Your task to perform on an android device: check battery use Image 0: 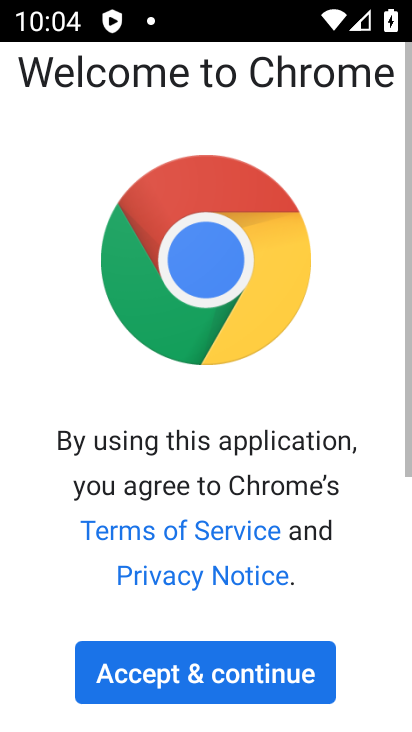
Step 0: press home button
Your task to perform on an android device: check battery use Image 1: 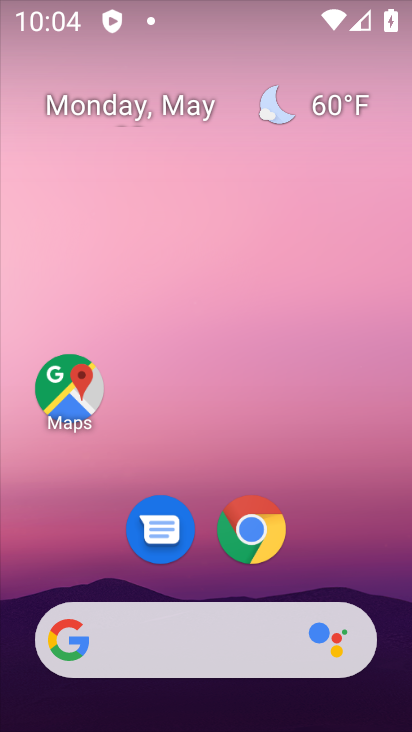
Step 1: drag from (185, 588) to (168, 278)
Your task to perform on an android device: check battery use Image 2: 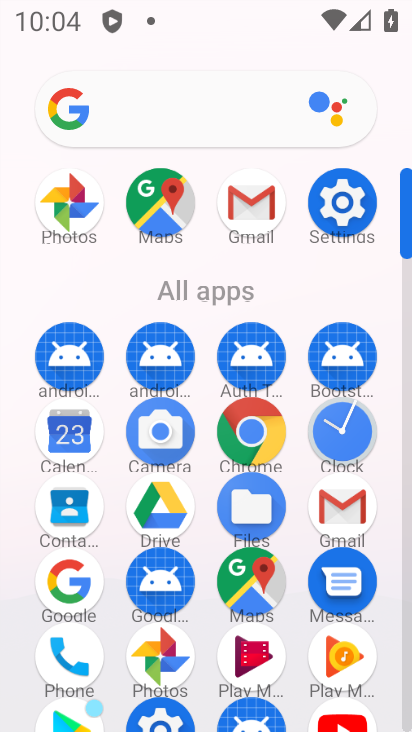
Step 2: click (336, 207)
Your task to perform on an android device: check battery use Image 3: 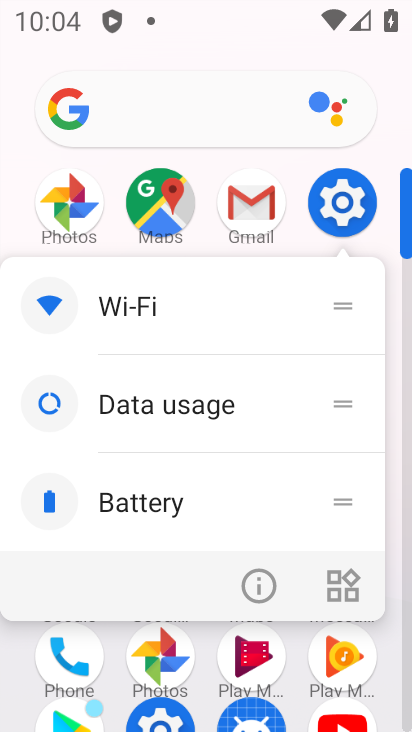
Step 3: click (343, 204)
Your task to perform on an android device: check battery use Image 4: 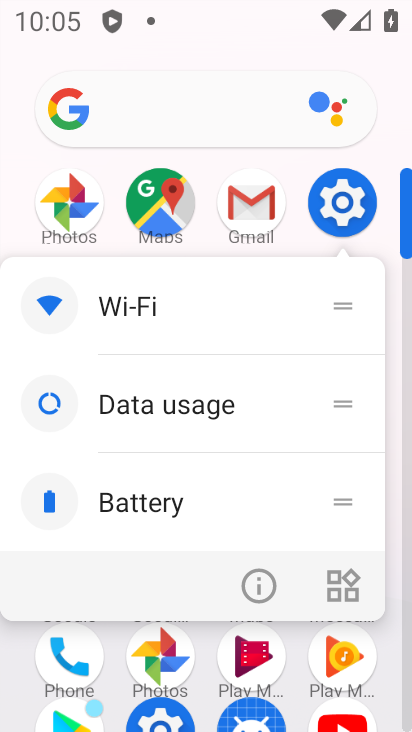
Step 4: click (333, 212)
Your task to perform on an android device: check battery use Image 5: 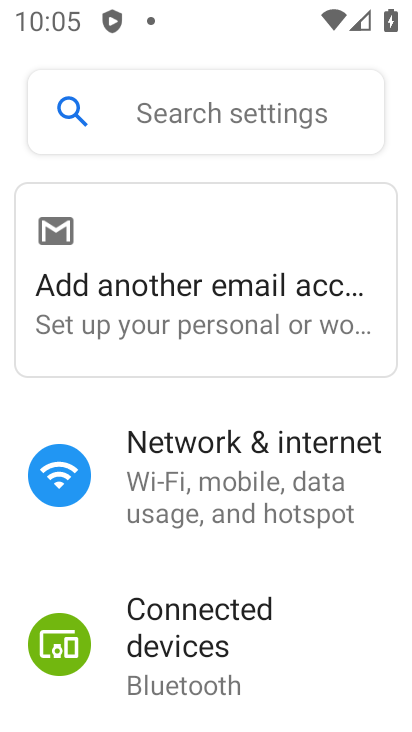
Step 5: drag from (239, 661) to (230, 264)
Your task to perform on an android device: check battery use Image 6: 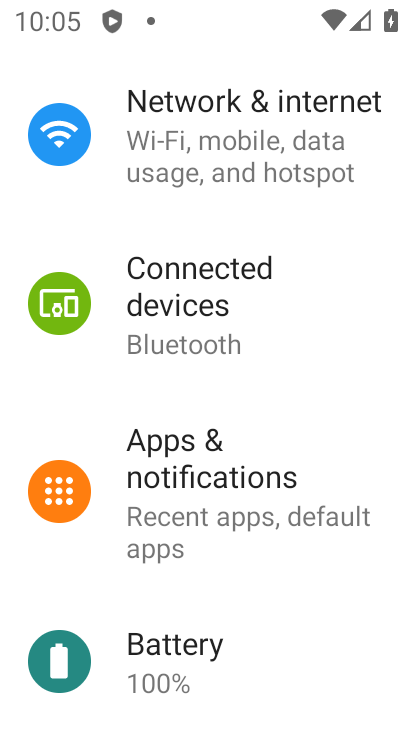
Step 6: click (169, 659)
Your task to perform on an android device: check battery use Image 7: 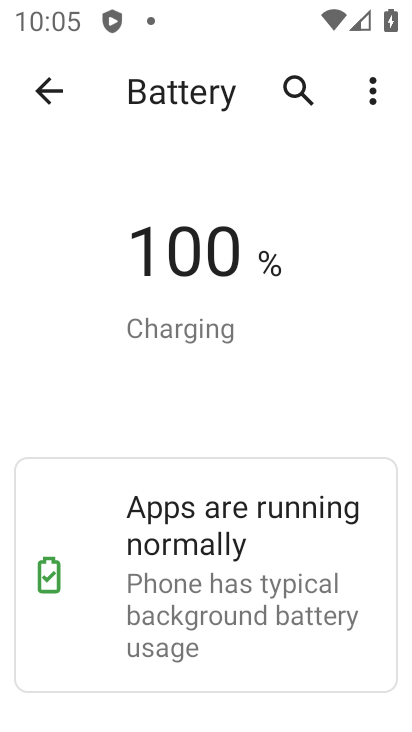
Step 7: task complete